Your task to perform on an android device: What's on my calendar today? Image 0: 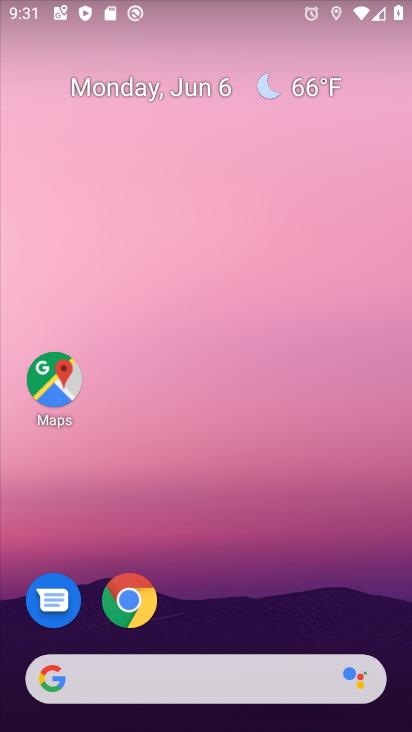
Step 0: press home button
Your task to perform on an android device: What's on my calendar today? Image 1: 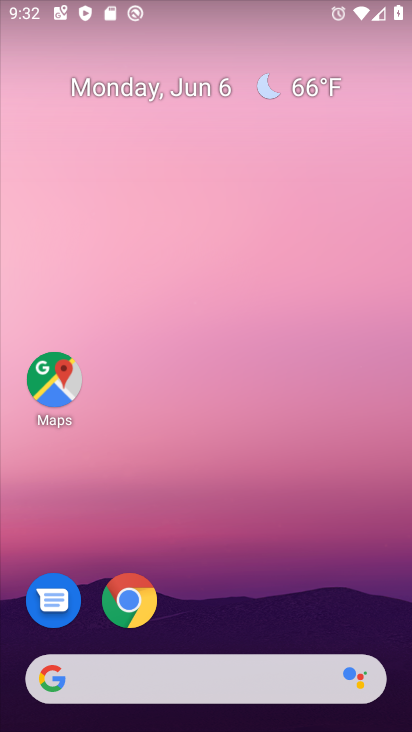
Step 1: drag from (8, 646) to (185, 92)
Your task to perform on an android device: What's on my calendar today? Image 2: 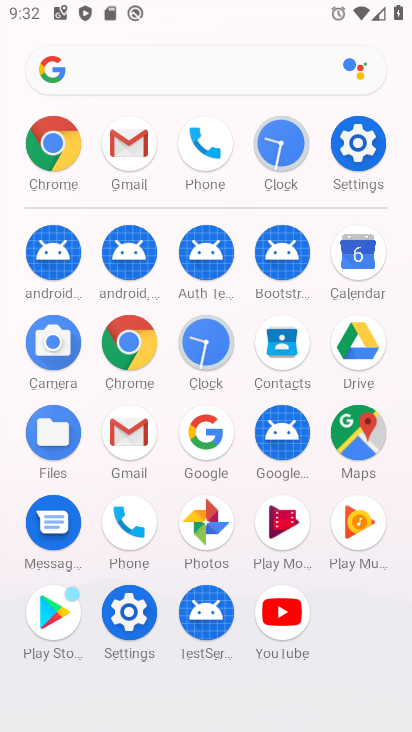
Step 2: click (363, 265)
Your task to perform on an android device: What's on my calendar today? Image 3: 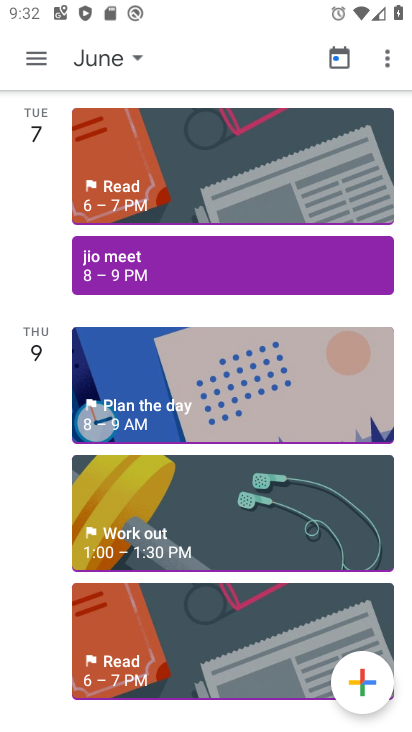
Step 3: click (115, 59)
Your task to perform on an android device: What's on my calendar today? Image 4: 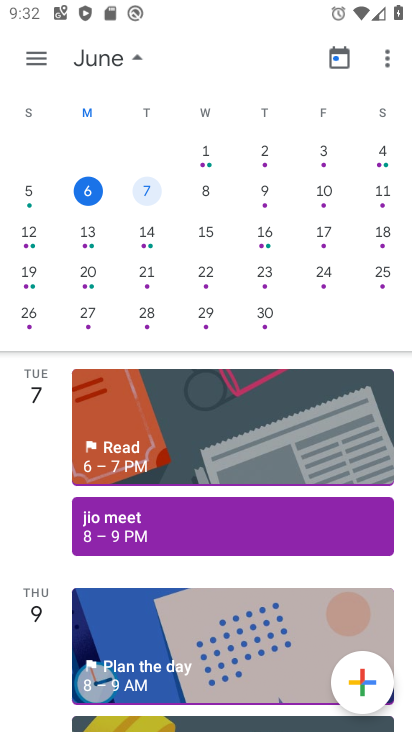
Step 4: task complete